Your task to perform on an android device: Find coffee shops on Maps Image 0: 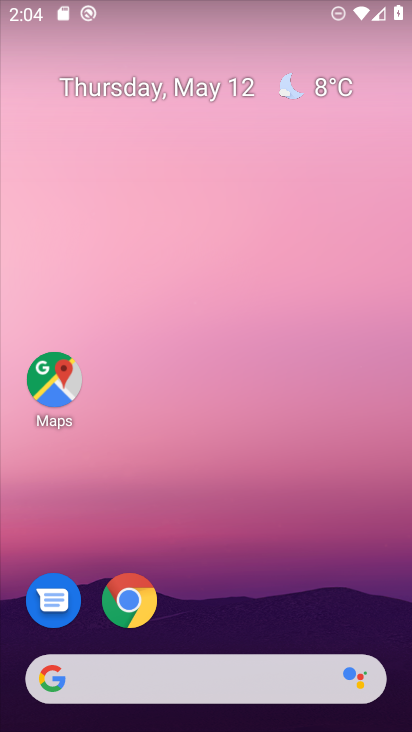
Step 0: drag from (208, 726) to (227, 242)
Your task to perform on an android device: Find coffee shops on Maps Image 1: 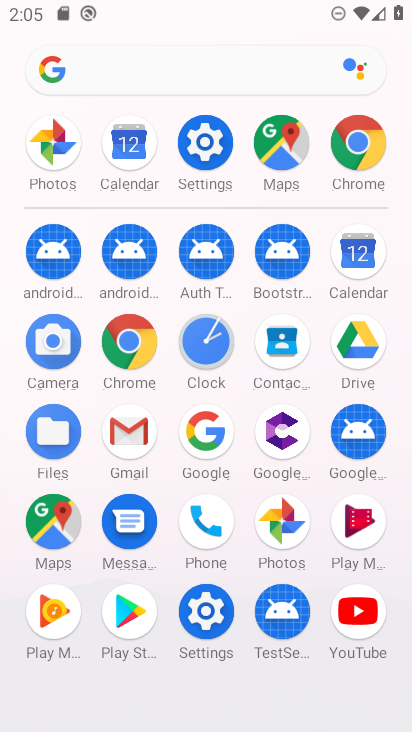
Step 1: click (50, 525)
Your task to perform on an android device: Find coffee shops on Maps Image 2: 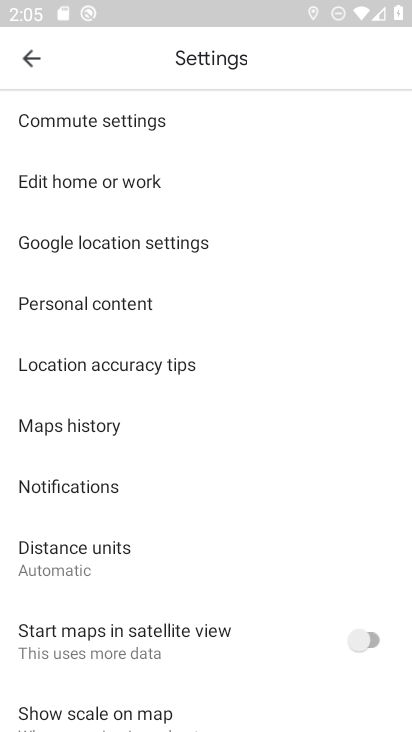
Step 2: click (37, 52)
Your task to perform on an android device: Find coffee shops on Maps Image 3: 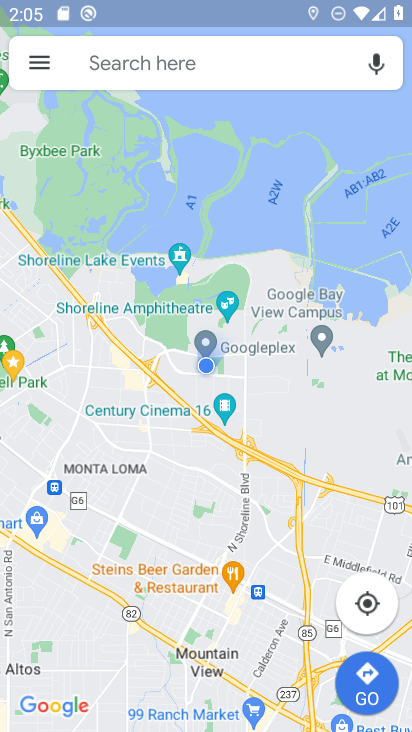
Step 3: click (262, 64)
Your task to perform on an android device: Find coffee shops on Maps Image 4: 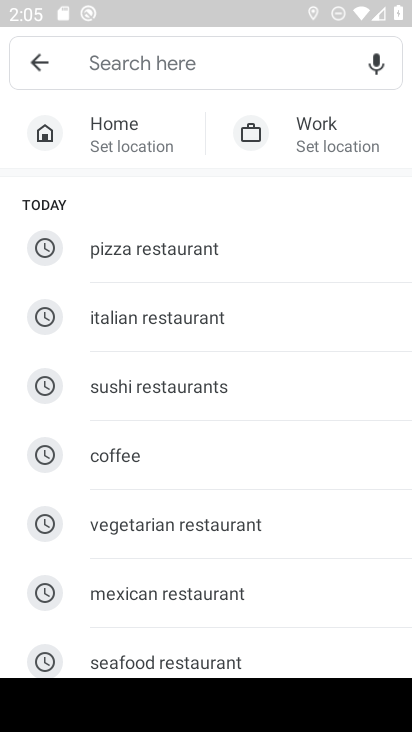
Step 4: type "coffee shops"
Your task to perform on an android device: Find coffee shops on Maps Image 5: 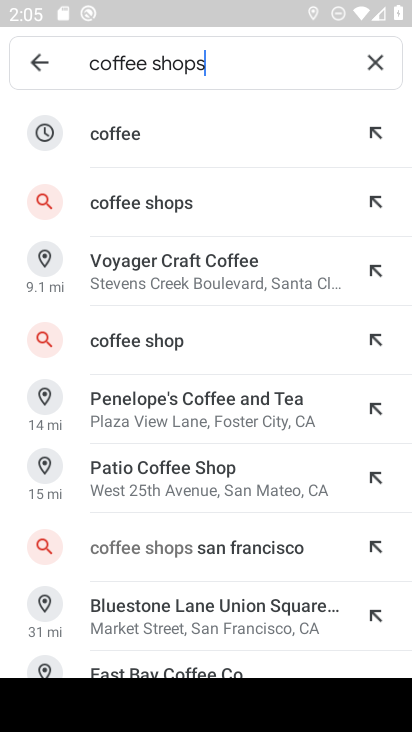
Step 5: click (154, 201)
Your task to perform on an android device: Find coffee shops on Maps Image 6: 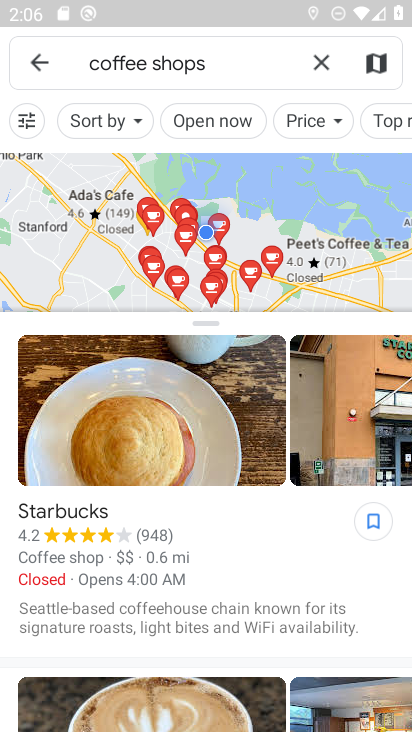
Step 6: task complete